Your task to perform on an android device: Show me popular games on the Play Store Image 0: 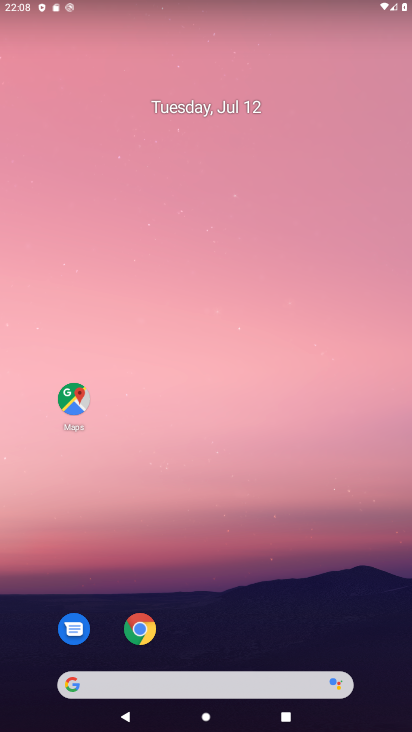
Step 0: drag from (300, 650) to (278, 27)
Your task to perform on an android device: Show me popular games on the Play Store Image 1: 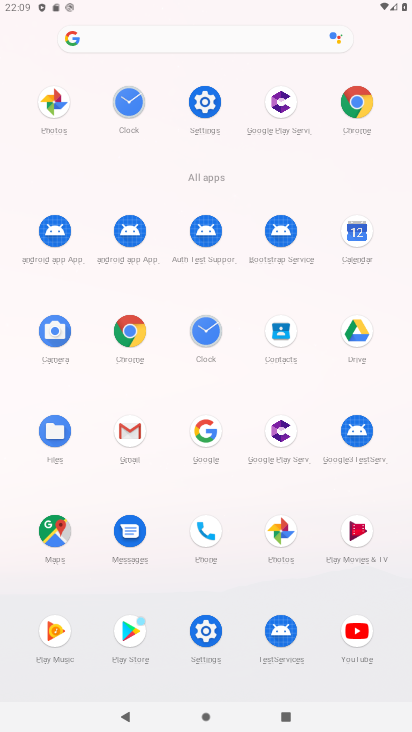
Step 1: press home button
Your task to perform on an android device: Show me popular games on the Play Store Image 2: 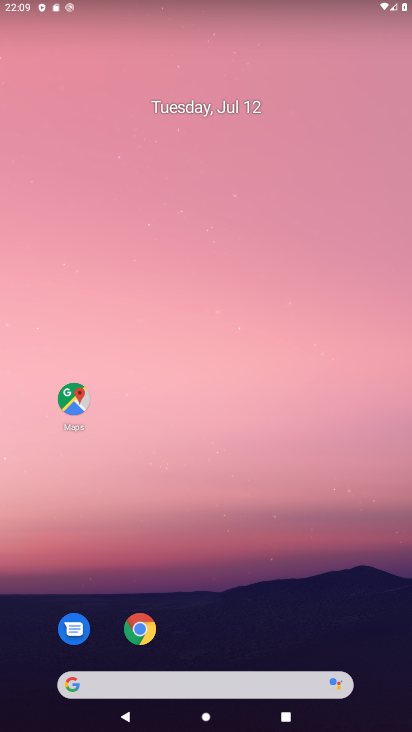
Step 2: drag from (224, 631) to (178, 14)
Your task to perform on an android device: Show me popular games on the Play Store Image 3: 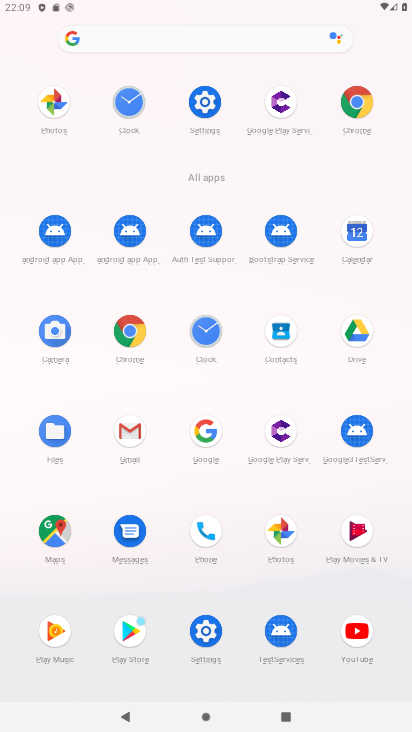
Step 3: click (139, 620)
Your task to perform on an android device: Show me popular games on the Play Store Image 4: 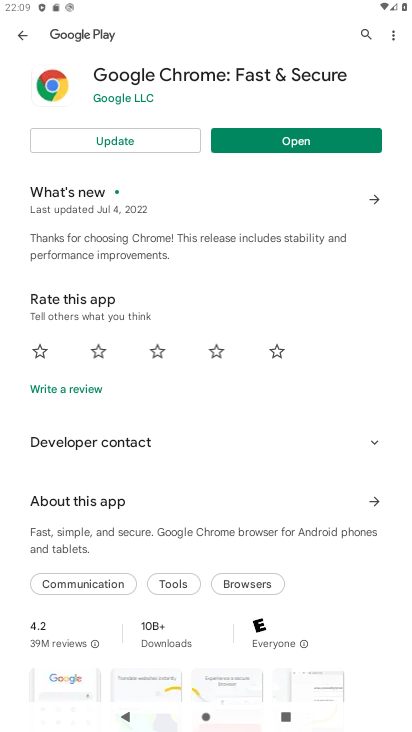
Step 4: click (13, 31)
Your task to perform on an android device: Show me popular games on the Play Store Image 5: 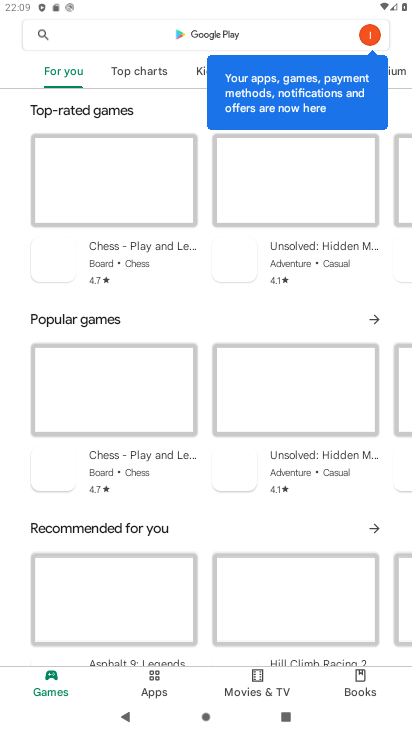
Step 5: click (96, 31)
Your task to perform on an android device: Show me popular games on the Play Store Image 6: 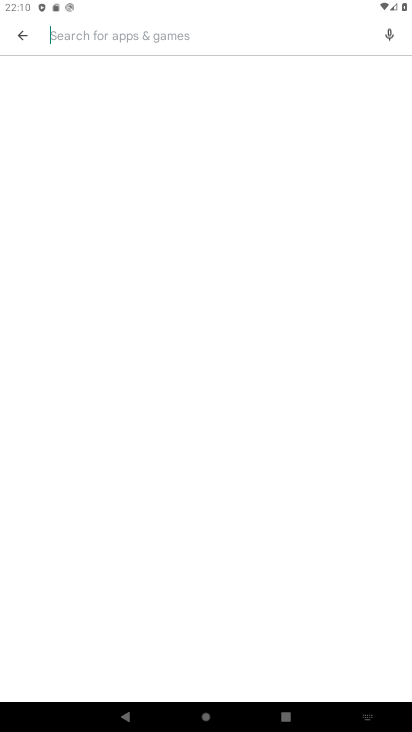
Step 6: type " popular games "
Your task to perform on an android device: Show me popular games on the Play Store Image 7: 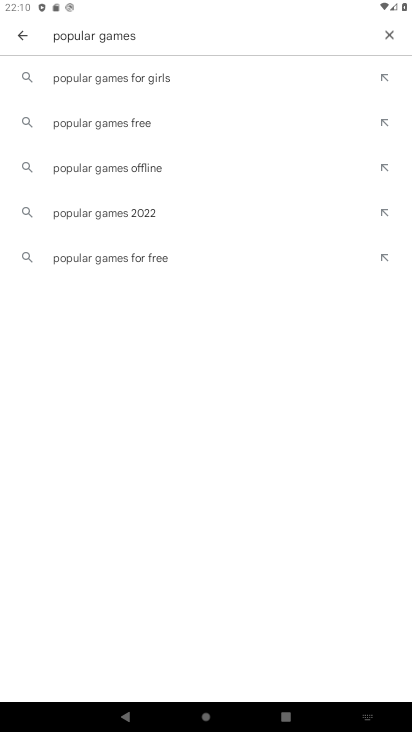
Step 7: click (92, 114)
Your task to perform on an android device: Show me popular games on the Play Store Image 8: 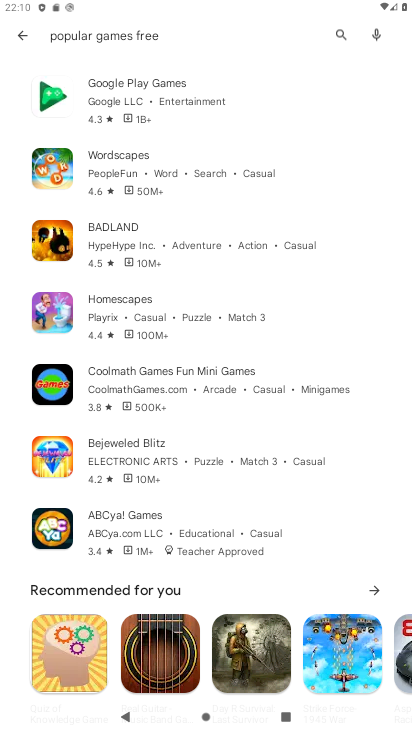
Step 8: task complete